Your task to perform on an android device: Open settings Image 0: 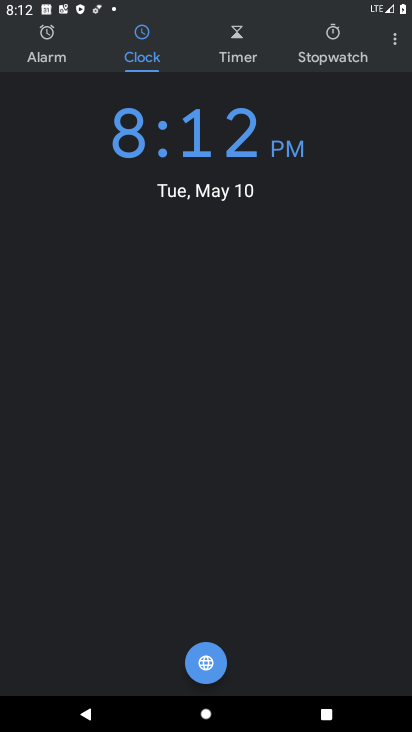
Step 0: press home button
Your task to perform on an android device: Open settings Image 1: 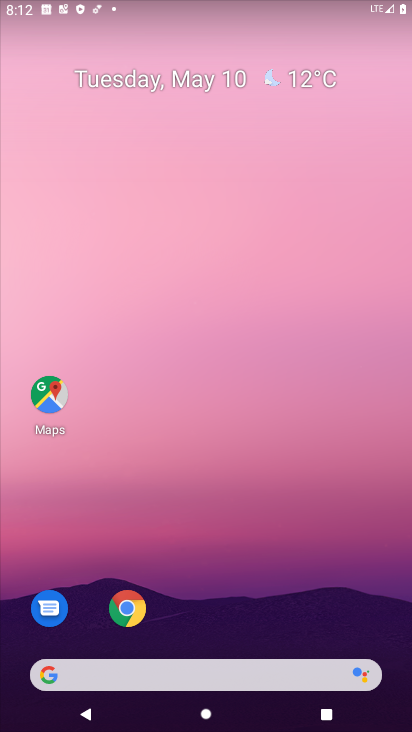
Step 1: drag from (138, 672) to (353, 87)
Your task to perform on an android device: Open settings Image 2: 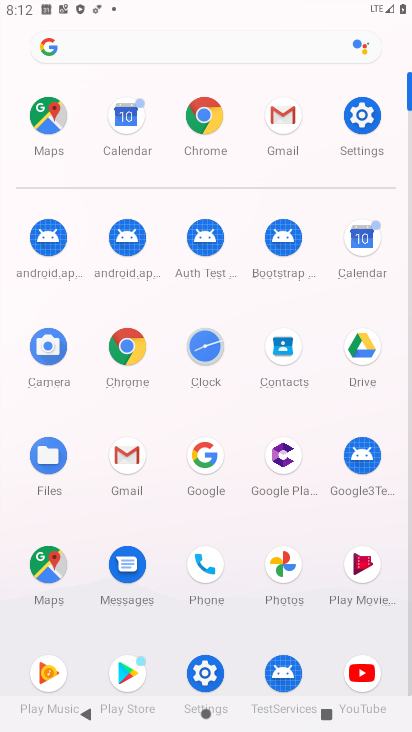
Step 2: click (352, 119)
Your task to perform on an android device: Open settings Image 3: 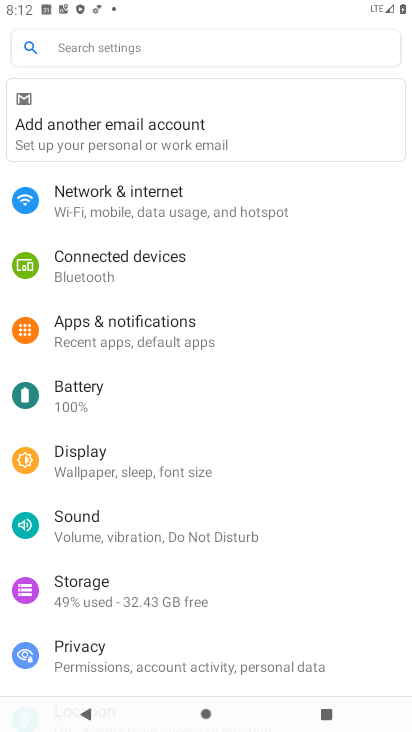
Step 3: task complete